Your task to perform on an android device: Go to Maps Image 0: 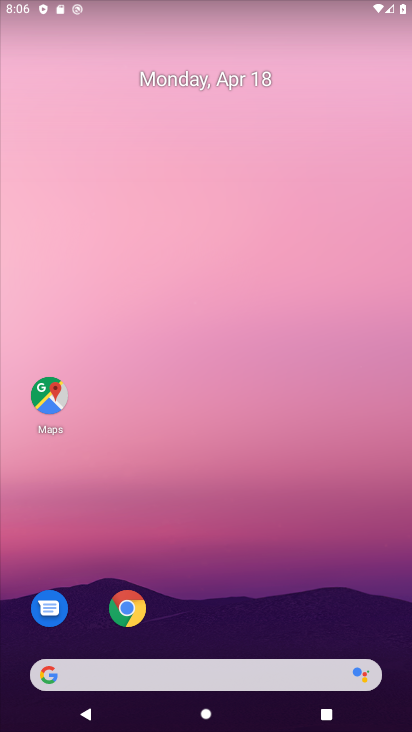
Step 0: click (47, 396)
Your task to perform on an android device: Go to Maps Image 1: 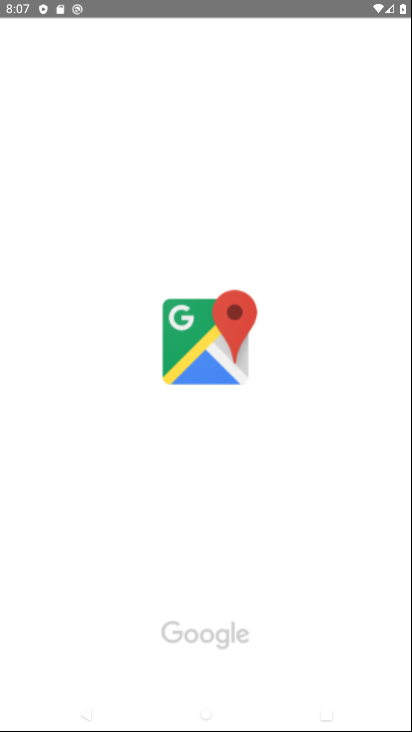
Step 1: press back button
Your task to perform on an android device: Go to Maps Image 2: 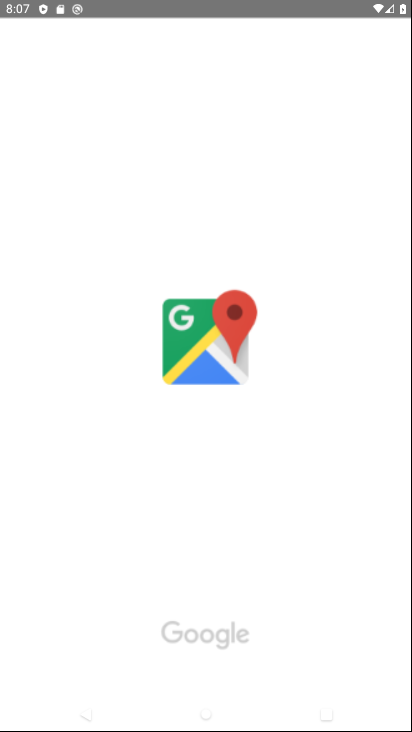
Step 2: press back button
Your task to perform on an android device: Go to Maps Image 3: 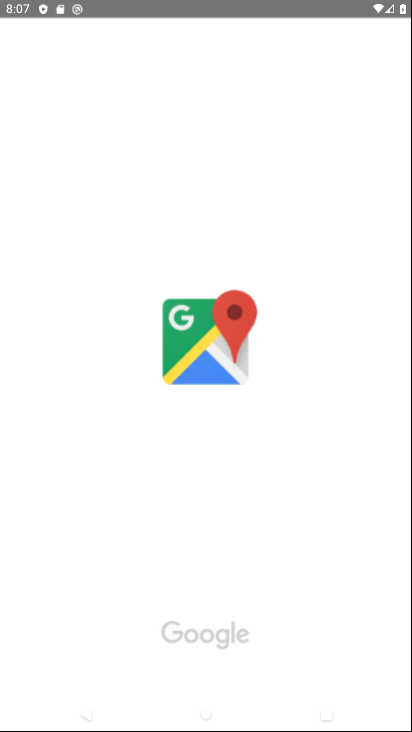
Step 3: press home button
Your task to perform on an android device: Go to Maps Image 4: 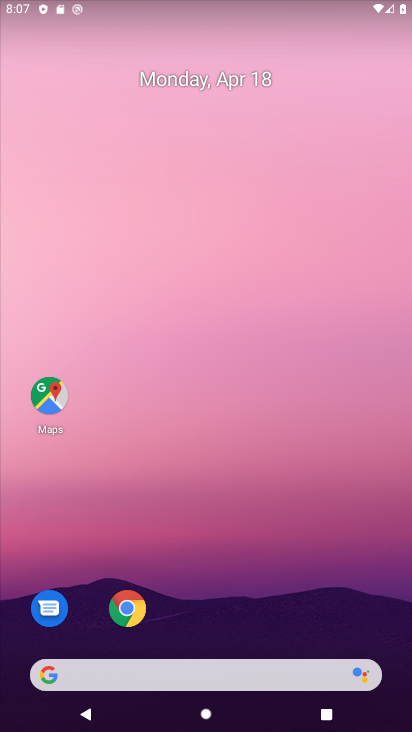
Step 4: click (49, 396)
Your task to perform on an android device: Go to Maps Image 5: 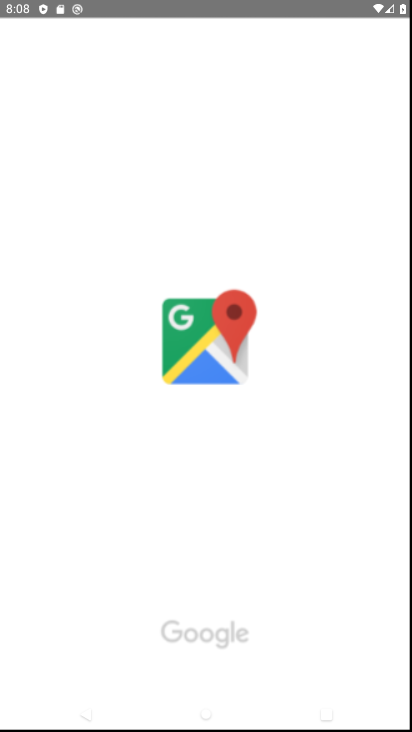
Step 5: press home button
Your task to perform on an android device: Go to Maps Image 6: 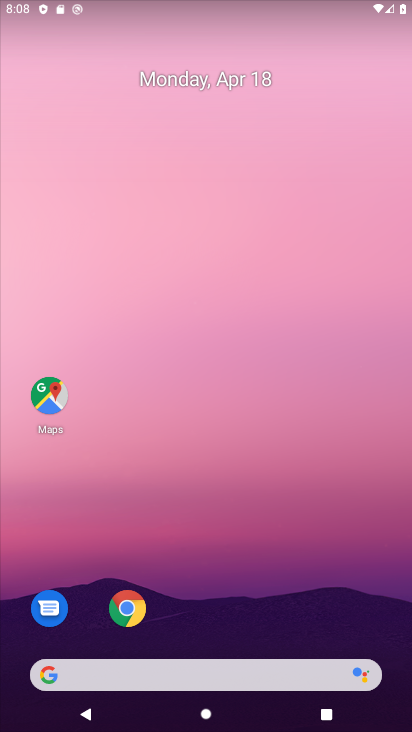
Step 6: click (53, 398)
Your task to perform on an android device: Go to Maps Image 7: 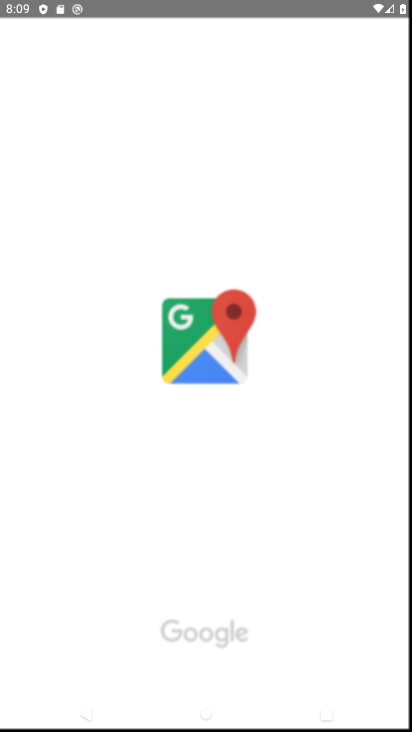
Step 7: task complete